Your task to perform on an android device: Go to Google Image 0: 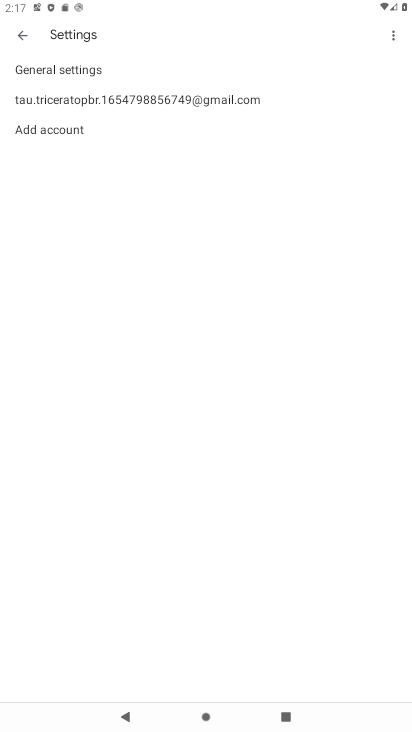
Step 0: press home button
Your task to perform on an android device: Go to Google Image 1: 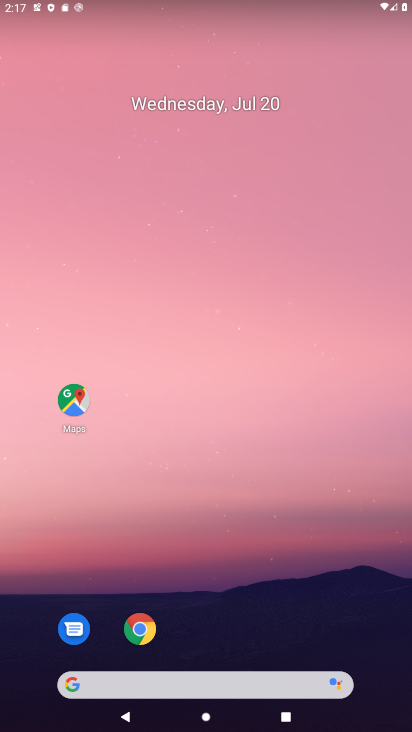
Step 1: drag from (198, 679) to (132, 231)
Your task to perform on an android device: Go to Google Image 2: 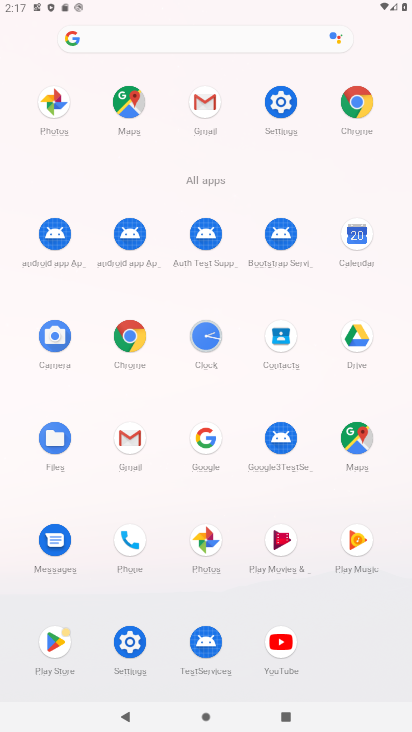
Step 2: click (196, 444)
Your task to perform on an android device: Go to Google Image 3: 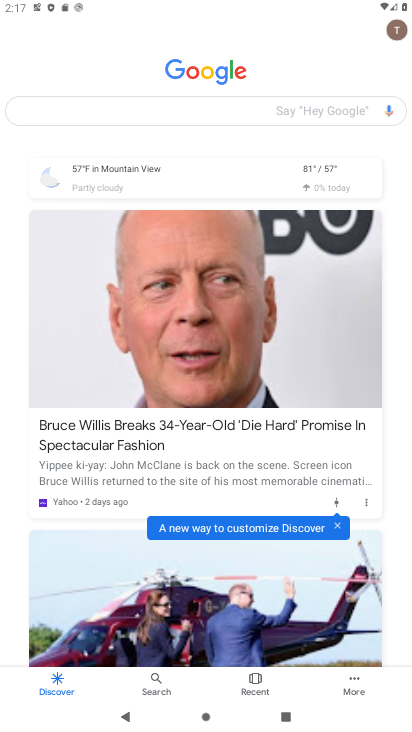
Step 3: task complete